Your task to perform on an android device: search for starred emails in the gmail app Image 0: 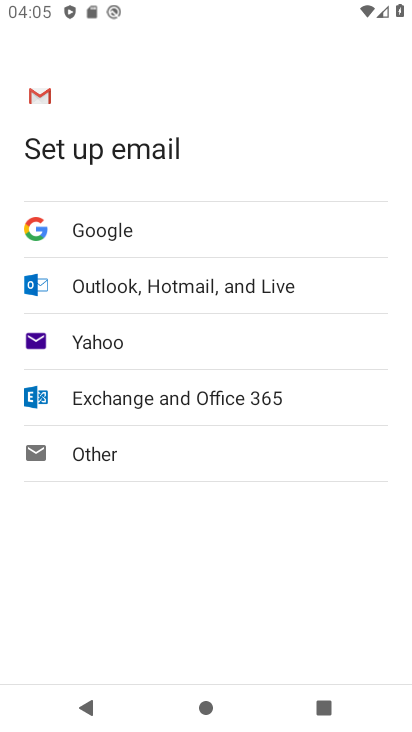
Step 0: press home button
Your task to perform on an android device: search for starred emails in the gmail app Image 1: 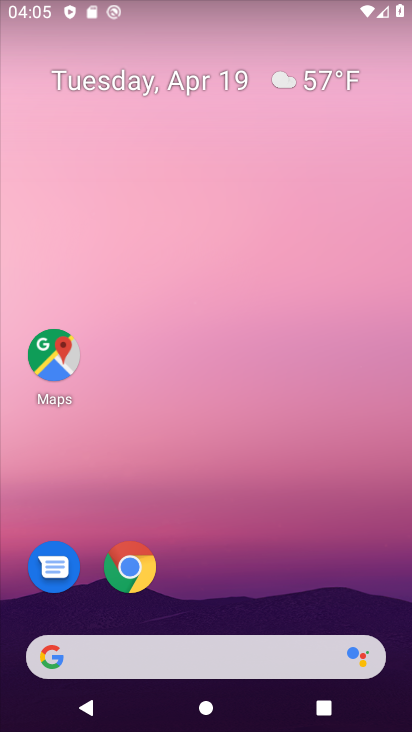
Step 1: drag from (361, 600) to (352, 153)
Your task to perform on an android device: search for starred emails in the gmail app Image 2: 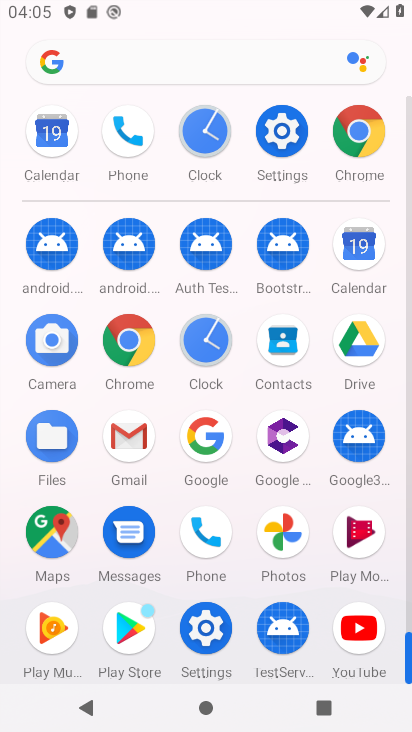
Step 2: click (136, 445)
Your task to perform on an android device: search for starred emails in the gmail app Image 3: 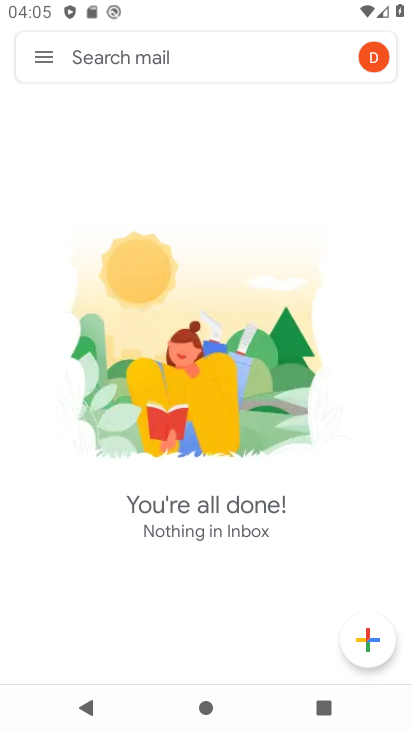
Step 3: click (41, 59)
Your task to perform on an android device: search for starred emails in the gmail app Image 4: 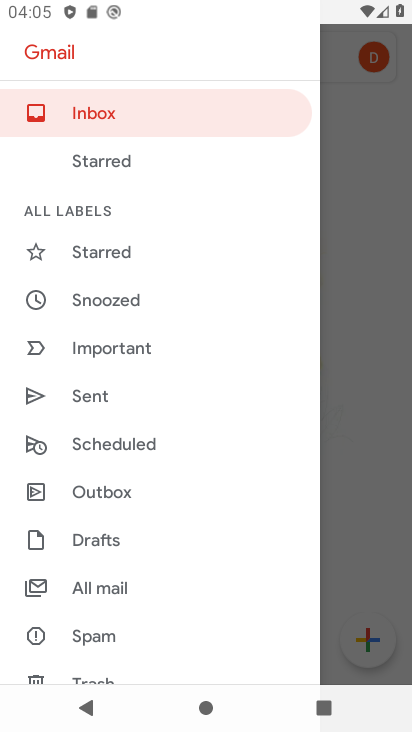
Step 4: drag from (243, 558) to (234, 381)
Your task to perform on an android device: search for starred emails in the gmail app Image 5: 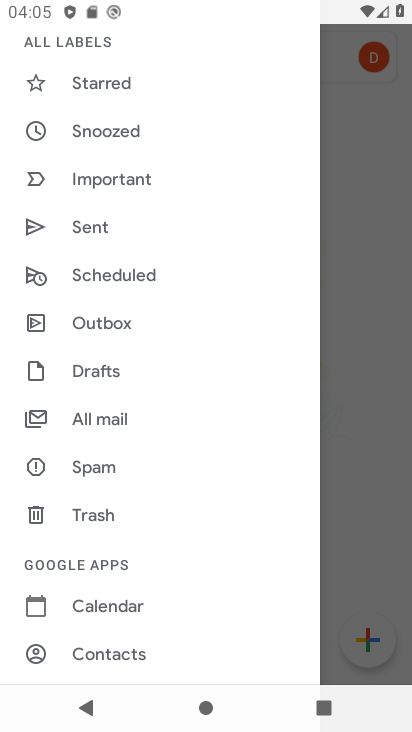
Step 5: drag from (241, 580) to (227, 402)
Your task to perform on an android device: search for starred emails in the gmail app Image 6: 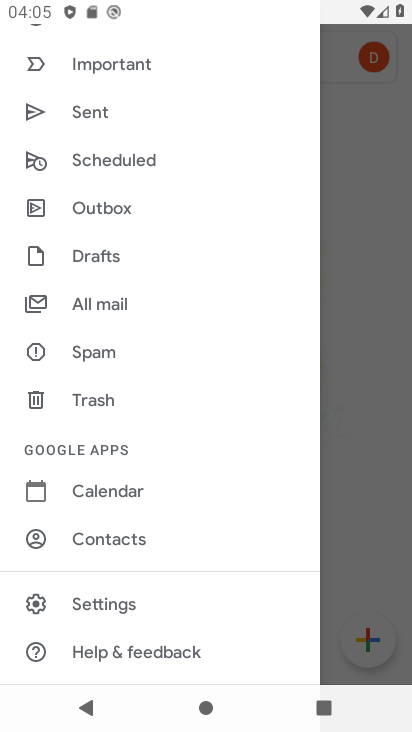
Step 6: drag from (235, 305) to (237, 424)
Your task to perform on an android device: search for starred emails in the gmail app Image 7: 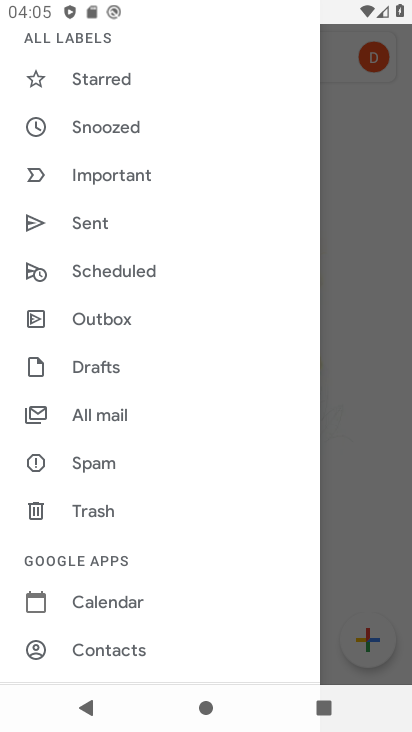
Step 7: drag from (235, 324) to (231, 475)
Your task to perform on an android device: search for starred emails in the gmail app Image 8: 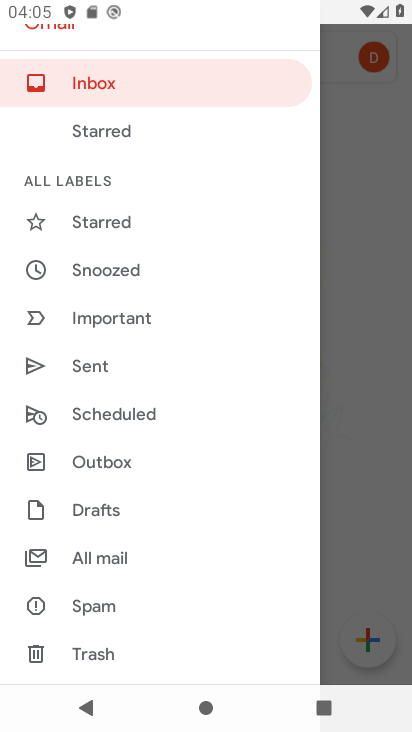
Step 8: drag from (241, 310) to (237, 444)
Your task to perform on an android device: search for starred emails in the gmail app Image 9: 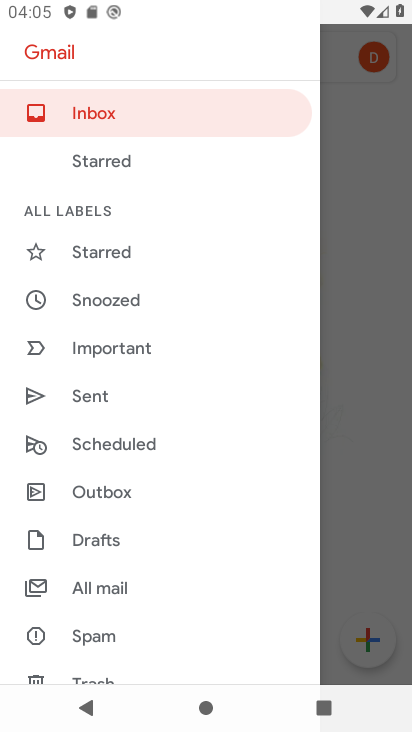
Step 9: click (110, 253)
Your task to perform on an android device: search for starred emails in the gmail app Image 10: 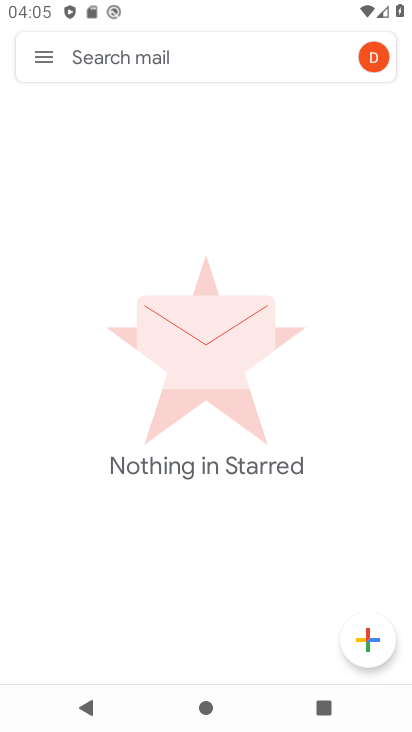
Step 10: task complete